Your task to perform on an android device: turn on the 12-hour format for clock Image 0: 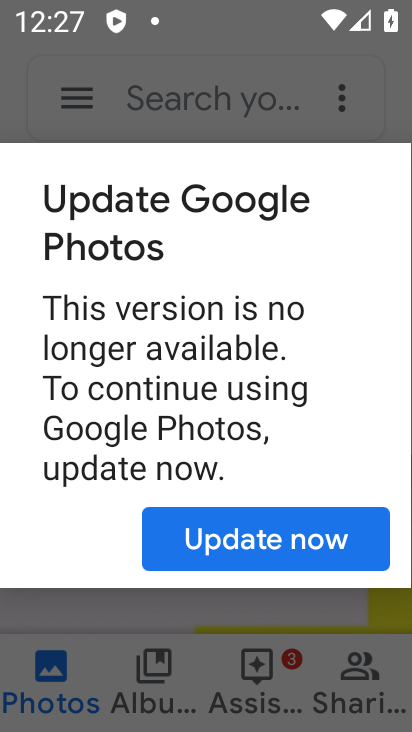
Step 0: press home button
Your task to perform on an android device: turn on the 12-hour format for clock Image 1: 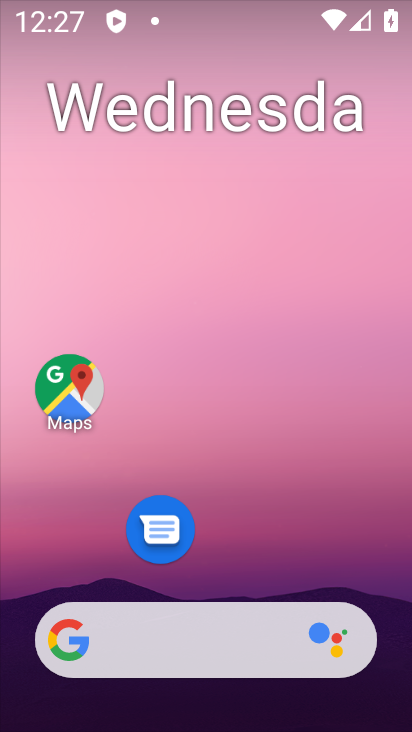
Step 1: drag from (238, 587) to (391, 540)
Your task to perform on an android device: turn on the 12-hour format for clock Image 2: 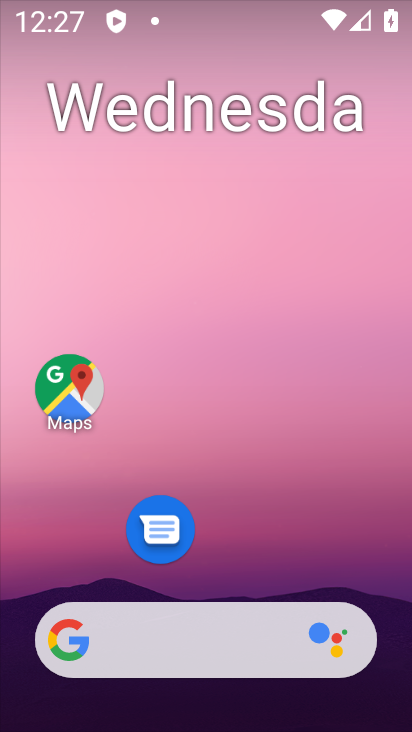
Step 2: drag from (225, 589) to (323, 28)
Your task to perform on an android device: turn on the 12-hour format for clock Image 3: 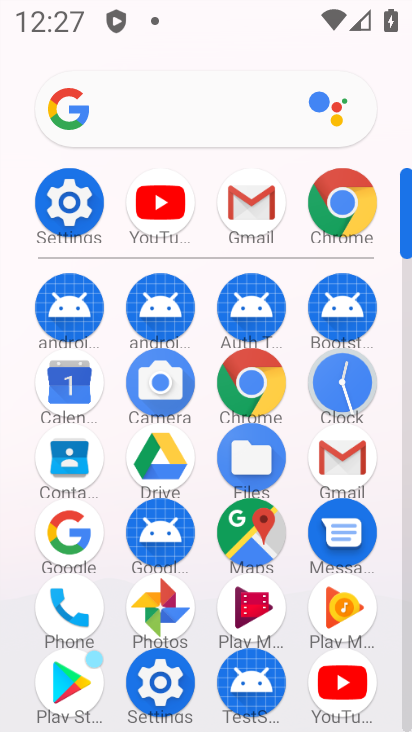
Step 3: click (346, 389)
Your task to perform on an android device: turn on the 12-hour format for clock Image 4: 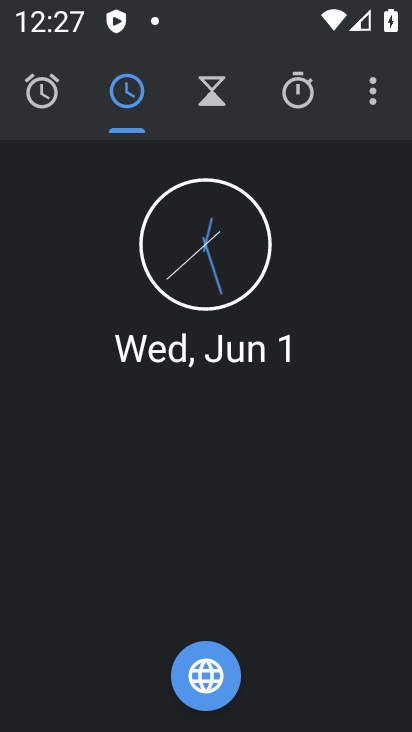
Step 4: click (370, 85)
Your task to perform on an android device: turn on the 12-hour format for clock Image 5: 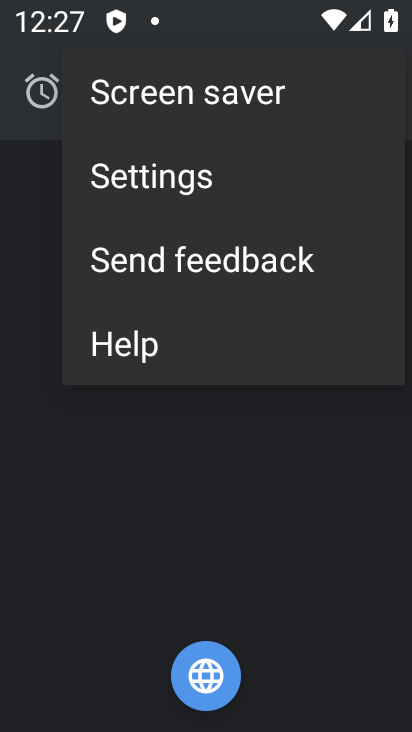
Step 5: click (178, 153)
Your task to perform on an android device: turn on the 12-hour format for clock Image 6: 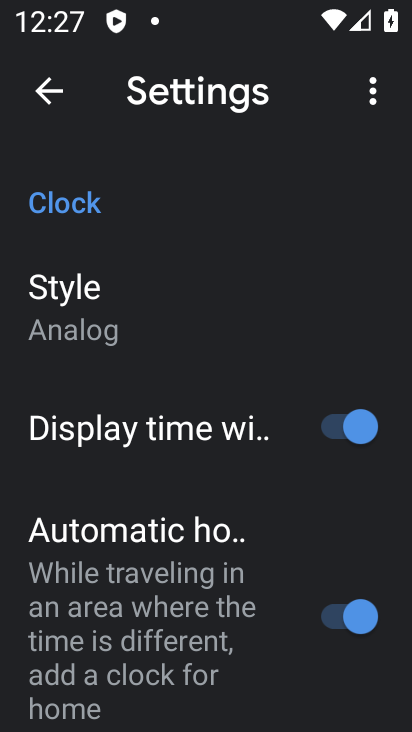
Step 6: drag from (207, 605) to (207, 103)
Your task to perform on an android device: turn on the 12-hour format for clock Image 7: 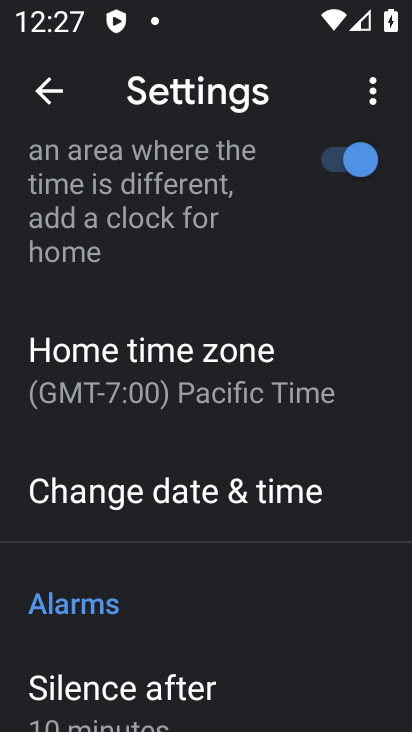
Step 7: click (245, 487)
Your task to perform on an android device: turn on the 12-hour format for clock Image 8: 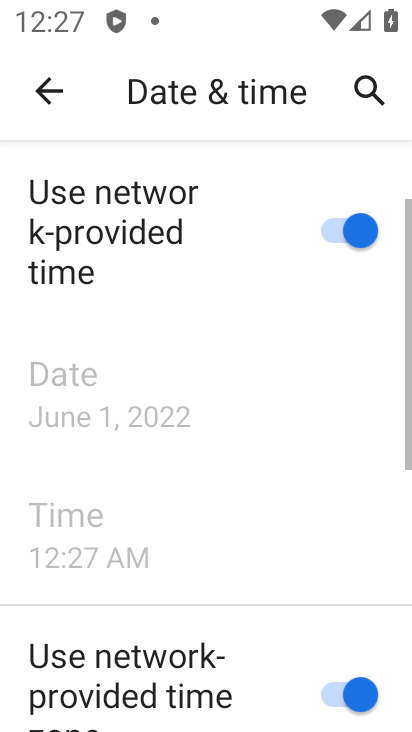
Step 8: task complete